Your task to perform on an android device: Open the web browser Image 0: 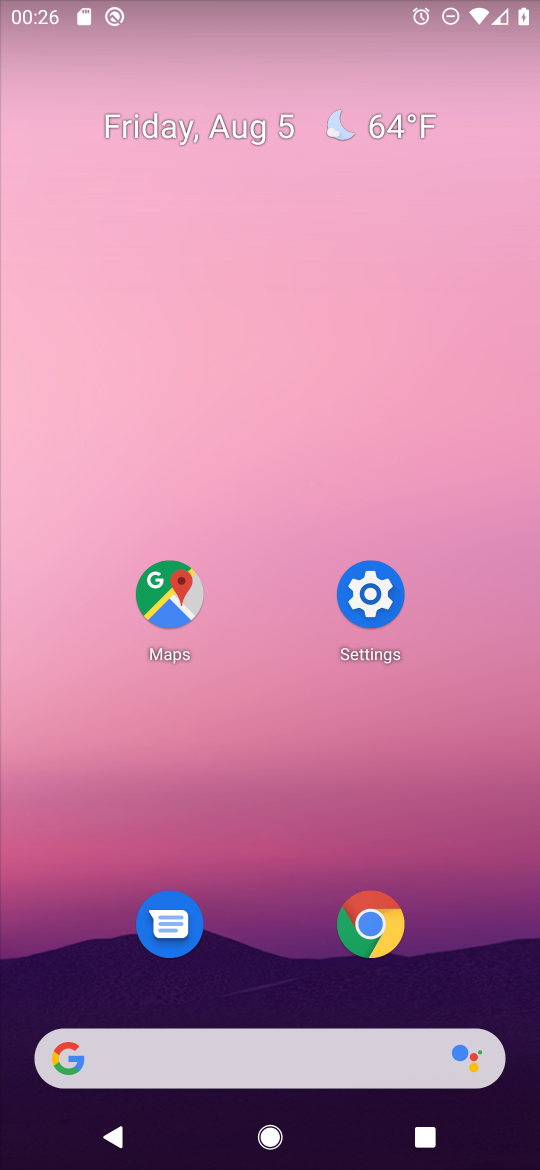
Step 0: click (374, 931)
Your task to perform on an android device: Open the web browser Image 1: 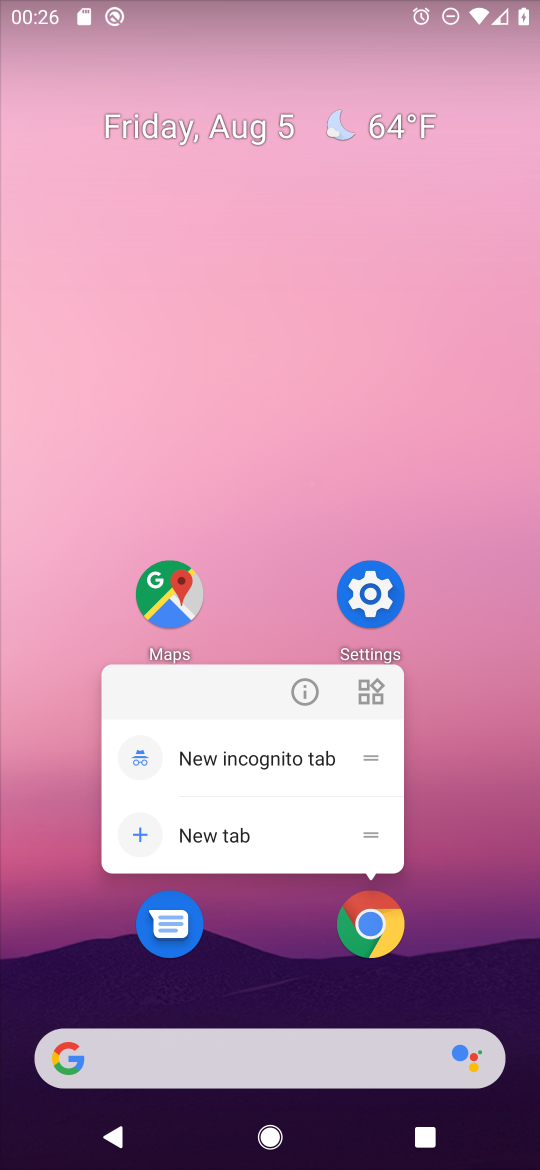
Step 1: click (376, 923)
Your task to perform on an android device: Open the web browser Image 2: 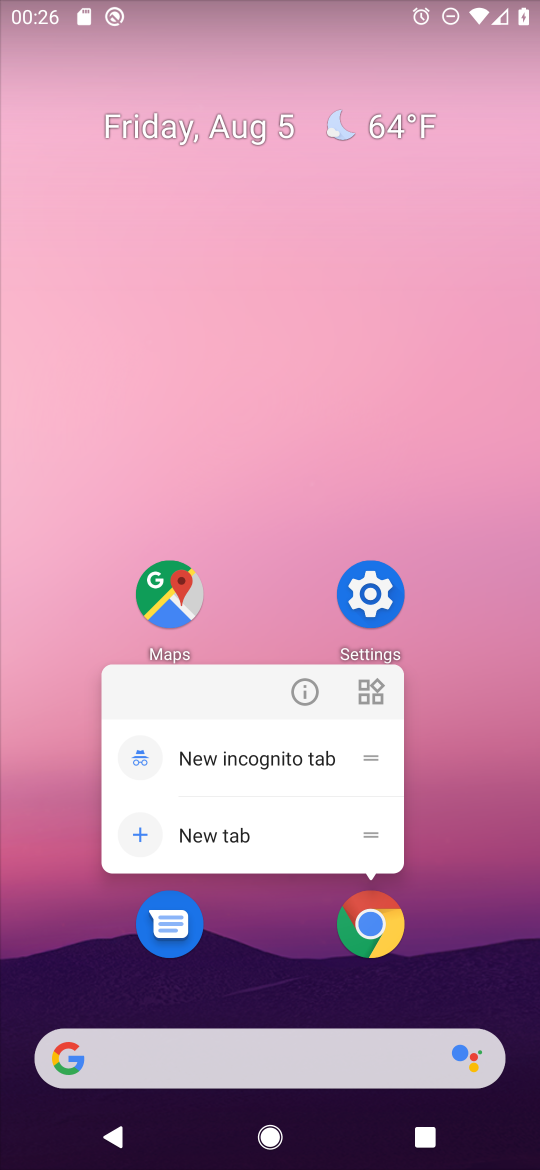
Step 2: click (376, 924)
Your task to perform on an android device: Open the web browser Image 3: 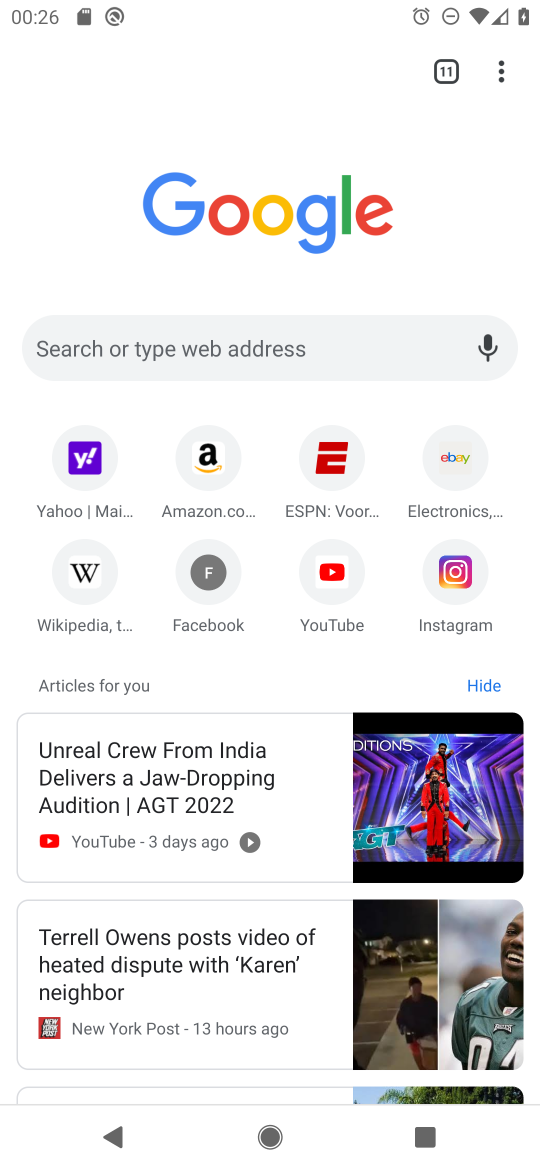
Step 3: task complete